Your task to perform on an android device: Open Chrome and go to settings Image 0: 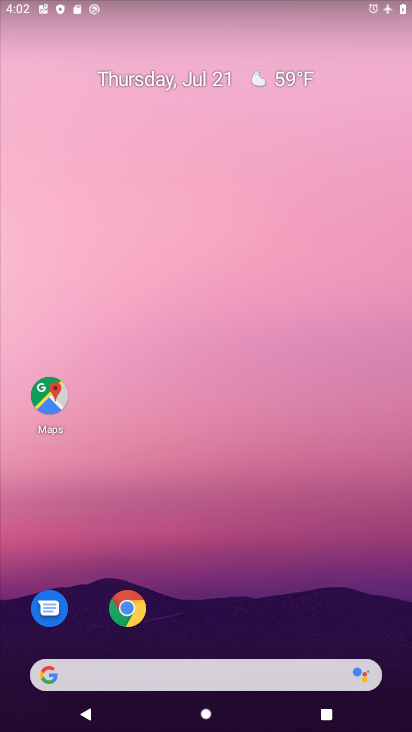
Step 0: drag from (313, 612) to (297, 188)
Your task to perform on an android device: Open Chrome and go to settings Image 1: 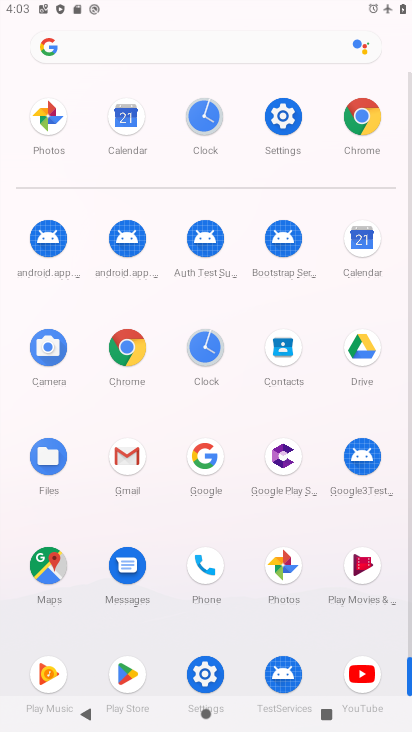
Step 1: click (139, 345)
Your task to perform on an android device: Open Chrome and go to settings Image 2: 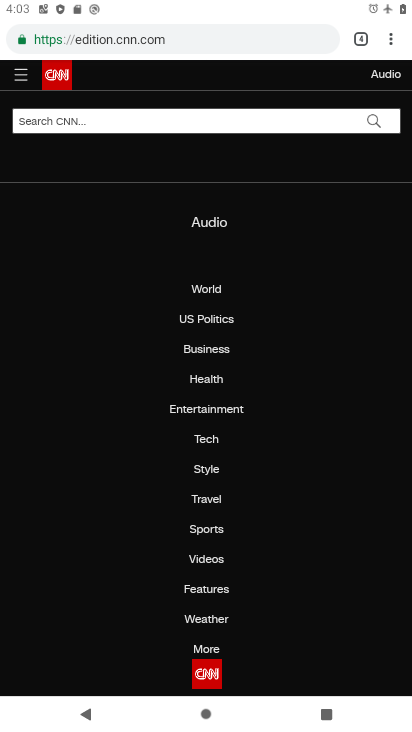
Step 2: task complete